Your task to perform on an android device: toggle show notifications on the lock screen Image 0: 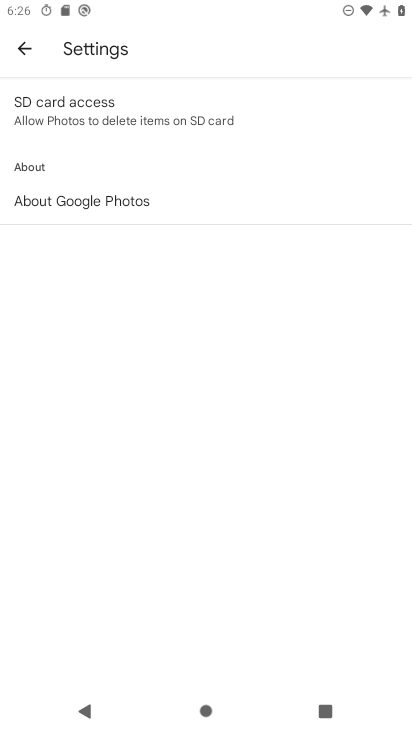
Step 0: press home button
Your task to perform on an android device: toggle show notifications on the lock screen Image 1: 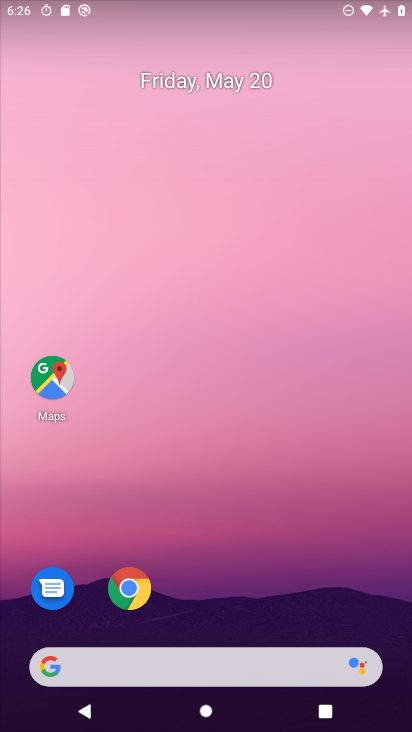
Step 1: drag from (217, 581) to (186, 209)
Your task to perform on an android device: toggle show notifications on the lock screen Image 2: 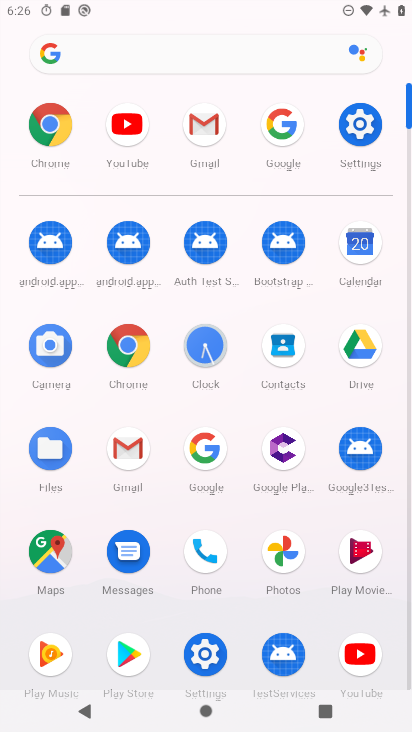
Step 2: click (349, 146)
Your task to perform on an android device: toggle show notifications on the lock screen Image 3: 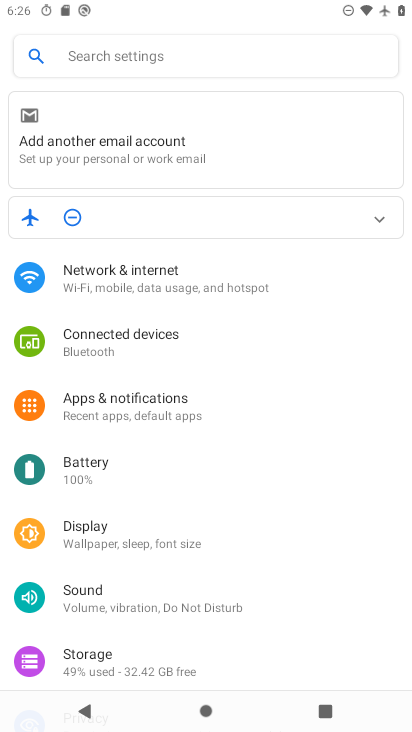
Step 3: click (148, 409)
Your task to perform on an android device: toggle show notifications on the lock screen Image 4: 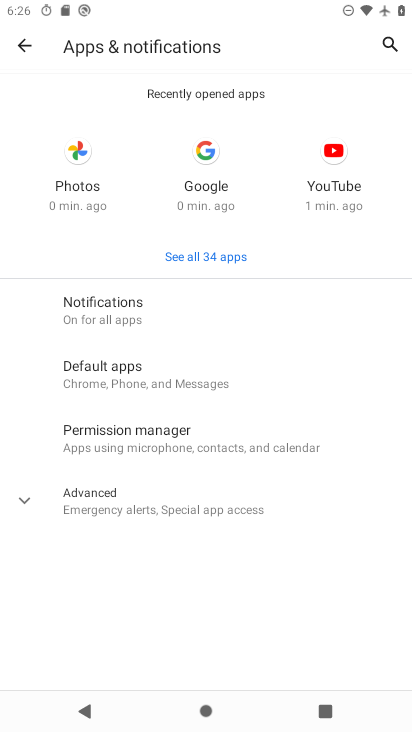
Step 4: click (126, 507)
Your task to perform on an android device: toggle show notifications on the lock screen Image 5: 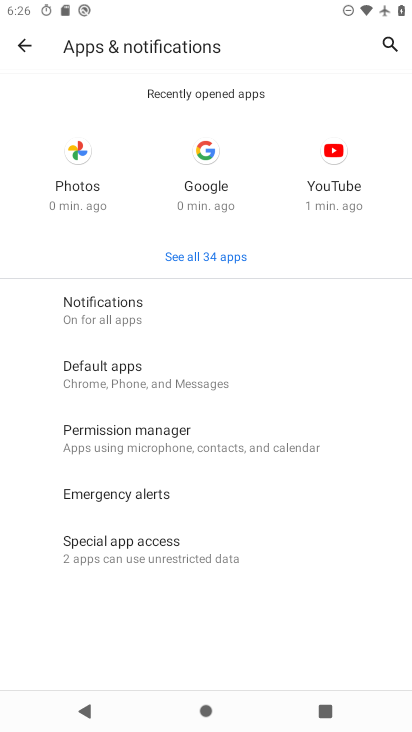
Step 5: click (146, 307)
Your task to perform on an android device: toggle show notifications on the lock screen Image 6: 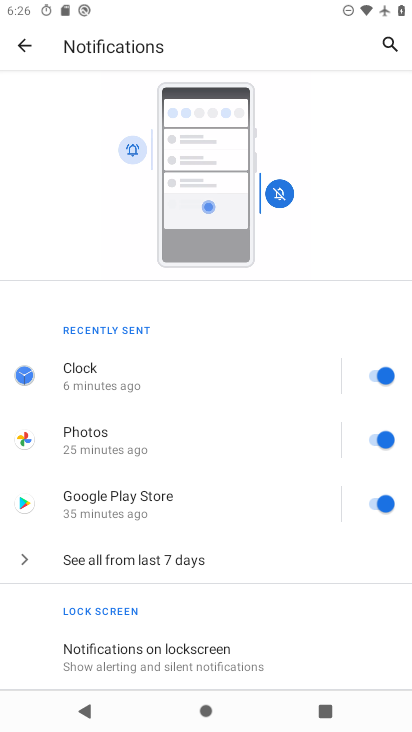
Step 6: click (197, 653)
Your task to perform on an android device: toggle show notifications on the lock screen Image 7: 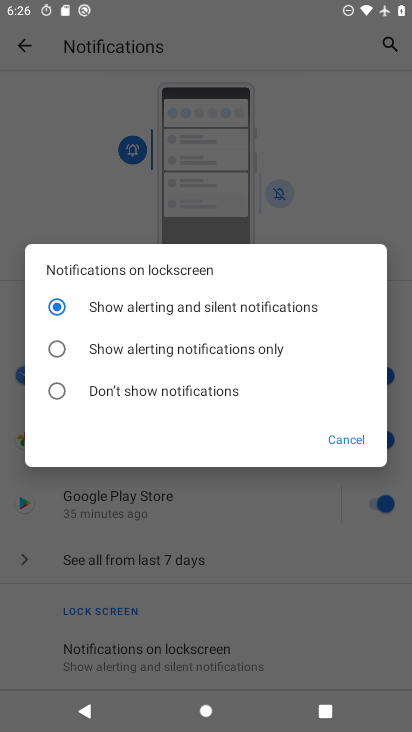
Step 7: click (70, 386)
Your task to perform on an android device: toggle show notifications on the lock screen Image 8: 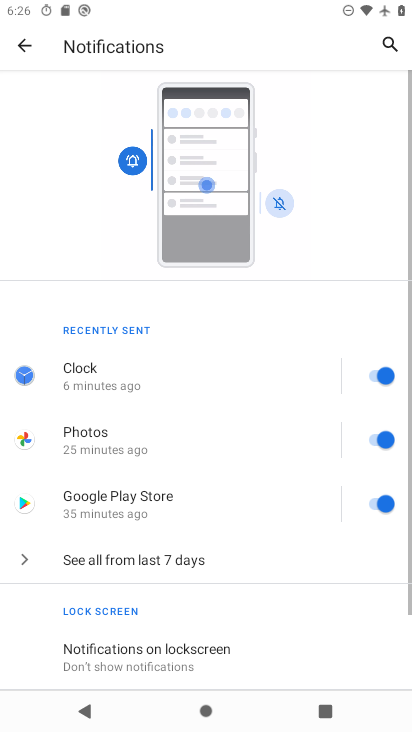
Step 8: task complete